Your task to perform on an android device: Go to ESPN.com Image 0: 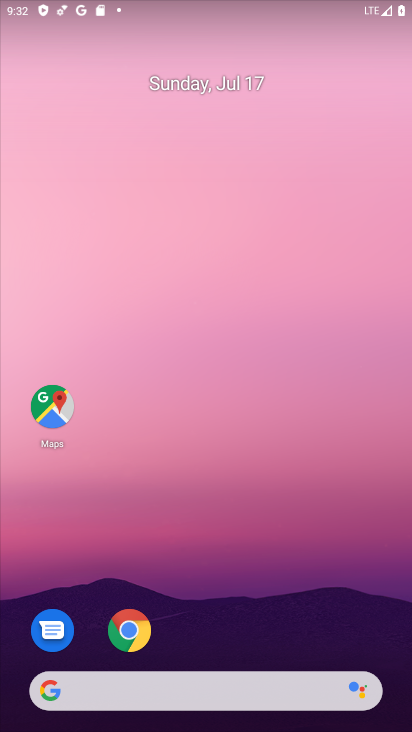
Step 0: press home button
Your task to perform on an android device: Go to ESPN.com Image 1: 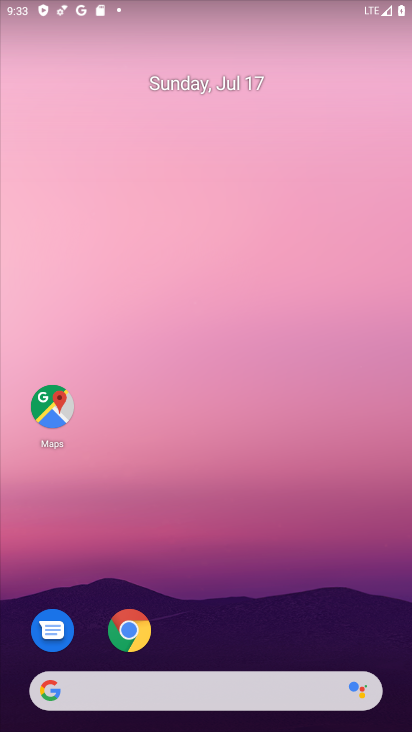
Step 1: drag from (207, 646) to (252, 95)
Your task to perform on an android device: Go to ESPN.com Image 2: 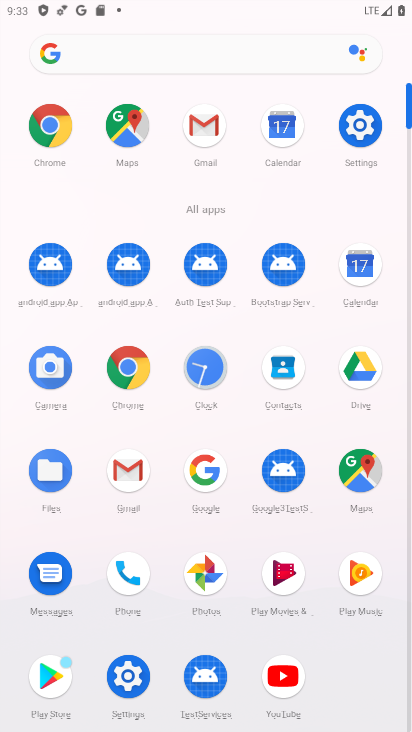
Step 2: click (43, 116)
Your task to perform on an android device: Go to ESPN.com Image 3: 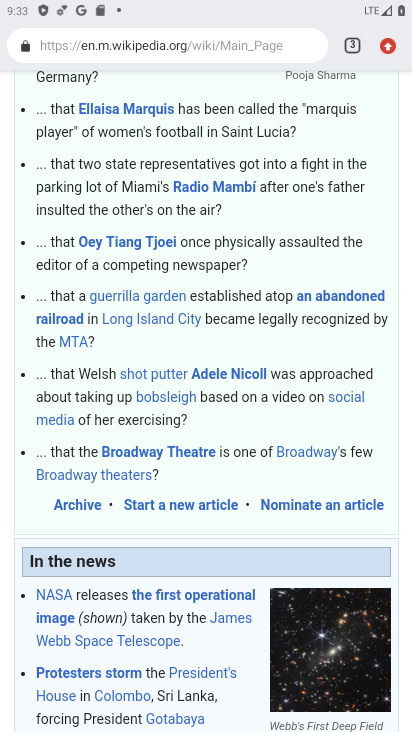
Step 3: click (356, 41)
Your task to perform on an android device: Go to ESPN.com Image 4: 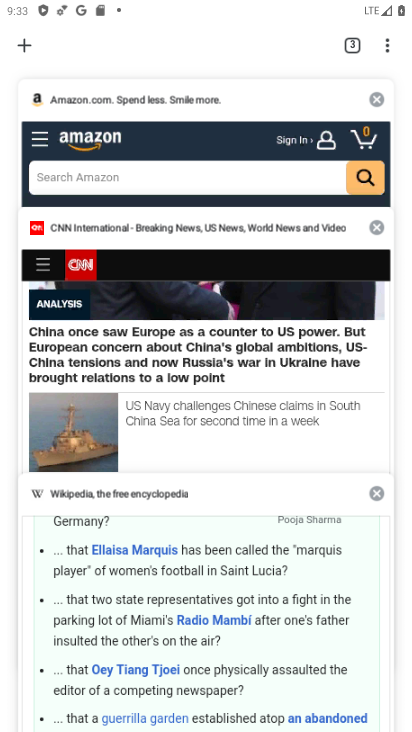
Step 4: click (26, 46)
Your task to perform on an android device: Go to ESPN.com Image 5: 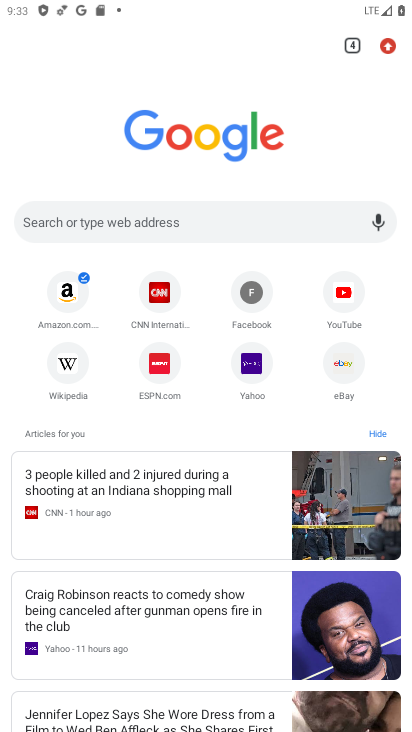
Step 5: click (154, 353)
Your task to perform on an android device: Go to ESPN.com Image 6: 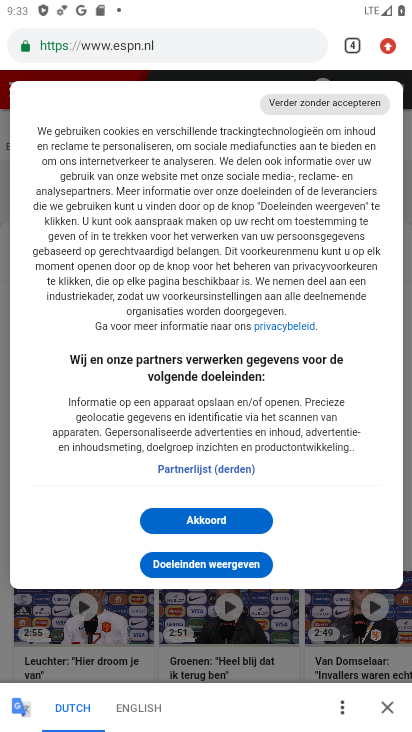
Step 6: click (204, 511)
Your task to perform on an android device: Go to ESPN.com Image 7: 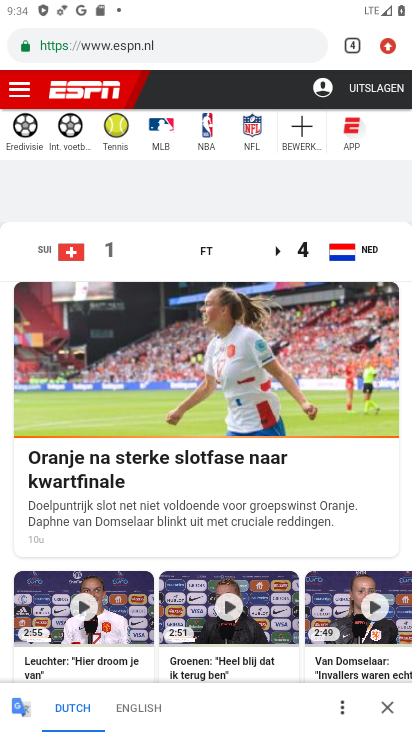
Step 7: task complete